Your task to perform on an android device: turn on sleep mode Image 0: 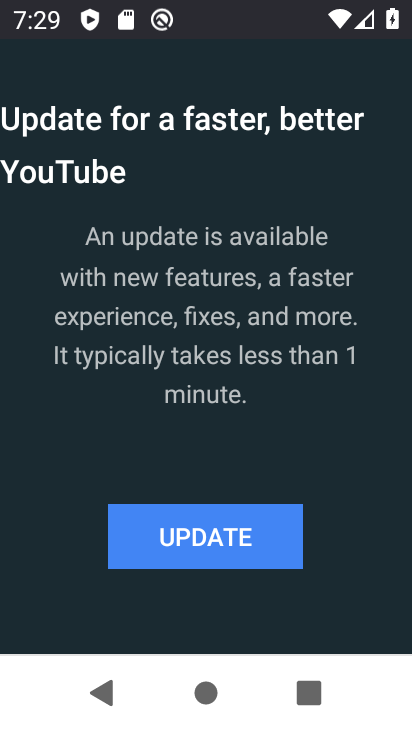
Step 0: click (324, 192)
Your task to perform on an android device: turn on sleep mode Image 1: 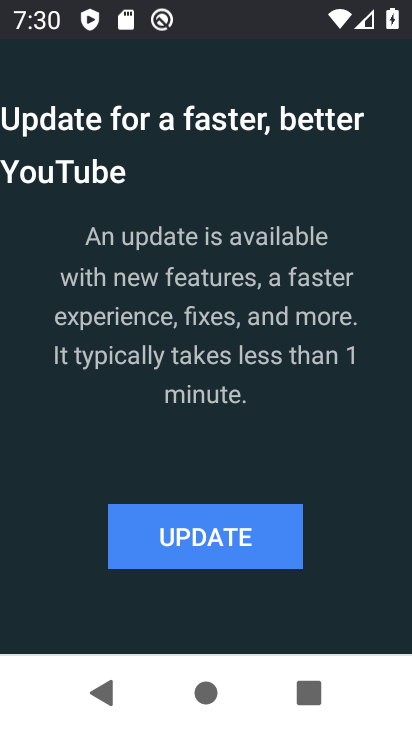
Step 1: press home button
Your task to perform on an android device: turn on sleep mode Image 2: 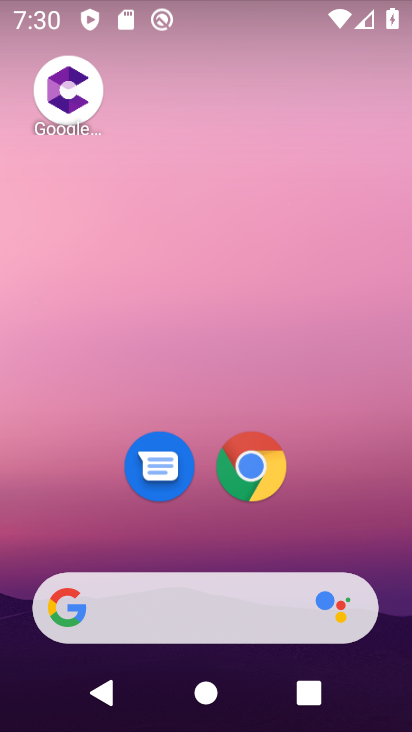
Step 2: drag from (337, 534) to (330, 244)
Your task to perform on an android device: turn on sleep mode Image 3: 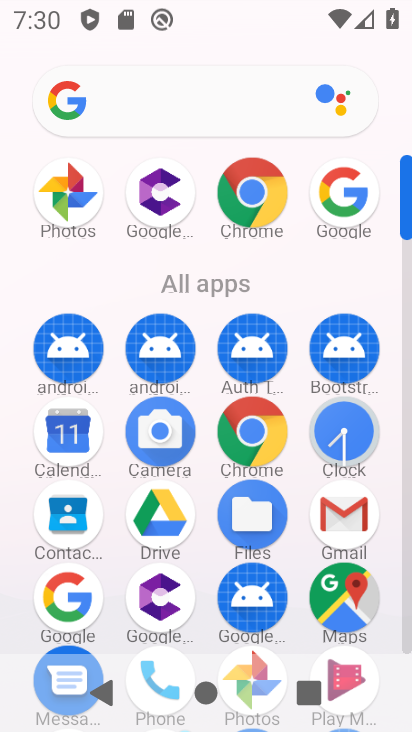
Step 3: drag from (251, 586) to (255, 224)
Your task to perform on an android device: turn on sleep mode Image 4: 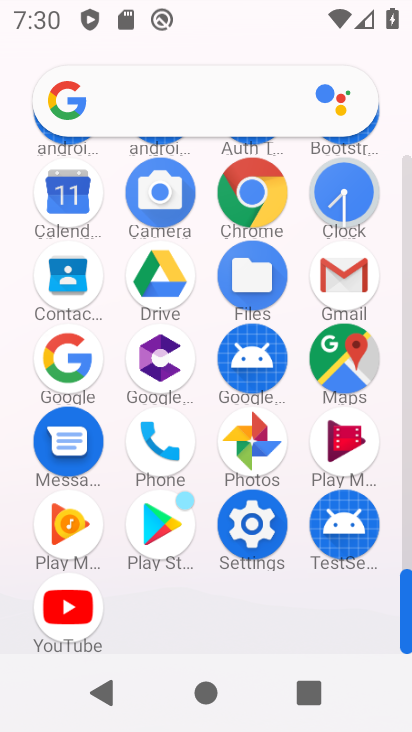
Step 4: click (239, 514)
Your task to perform on an android device: turn on sleep mode Image 5: 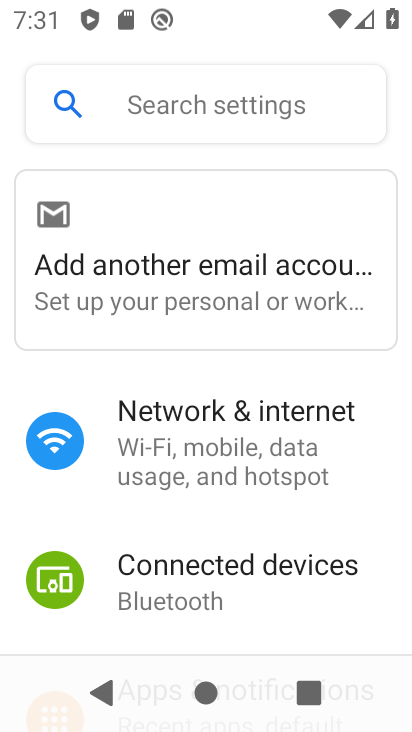
Step 5: task complete